Your task to perform on an android device: turn on bluetooth scan Image 0: 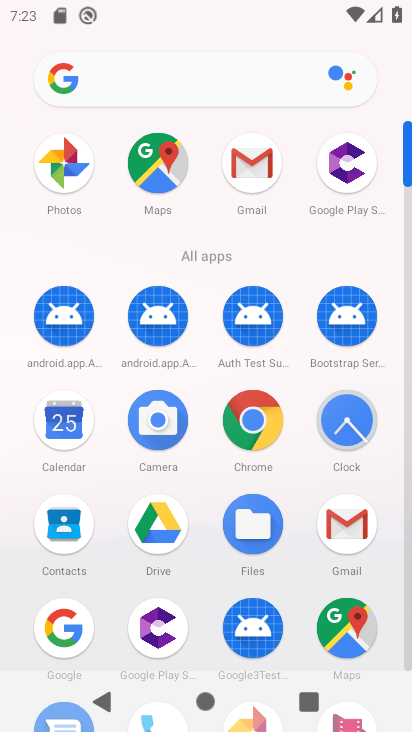
Step 0: drag from (265, 583) to (264, 322)
Your task to perform on an android device: turn on bluetooth scan Image 1: 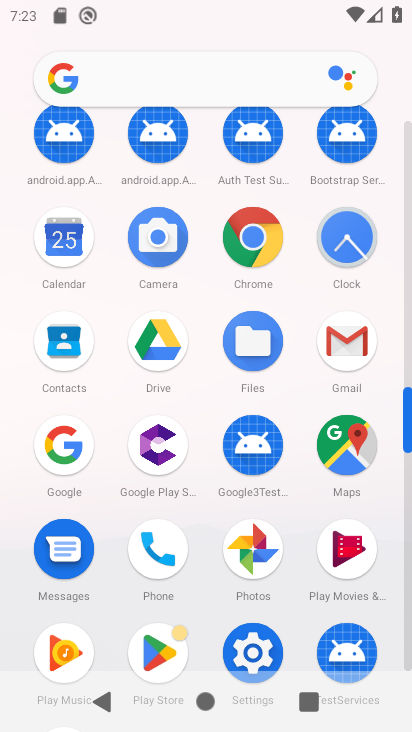
Step 1: click (243, 658)
Your task to perform on an android device: turn on bluetooth scan Image 2: 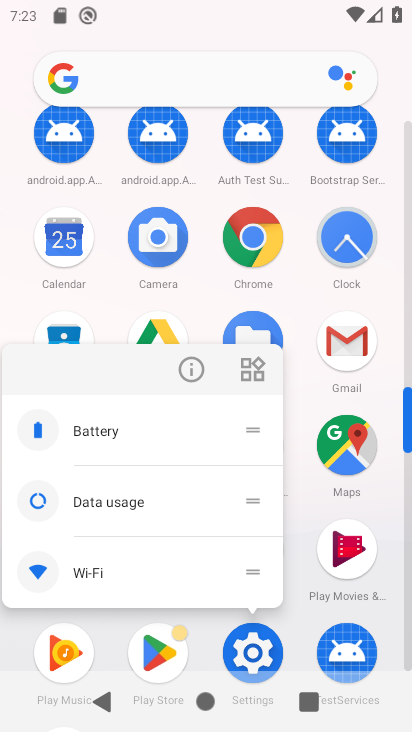
Step 2: click (255, 649)
Your task to perform on an android device: turn on bluetooth scan Image 3: 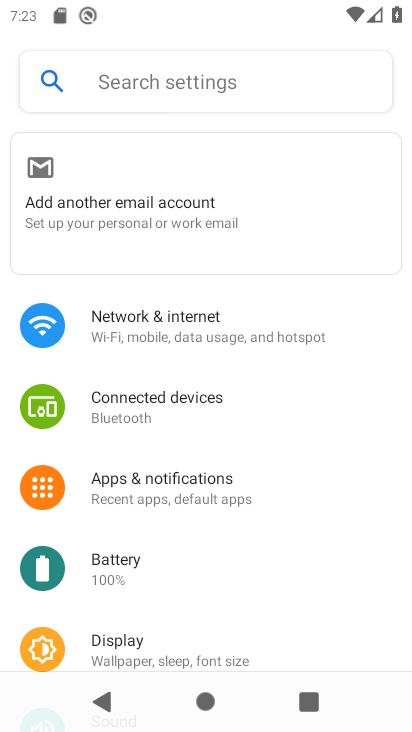
Step 3: drag from (225, 604) to (330, 321)
Your task to perform on an android device: turn on bluetooth scan Image 4: 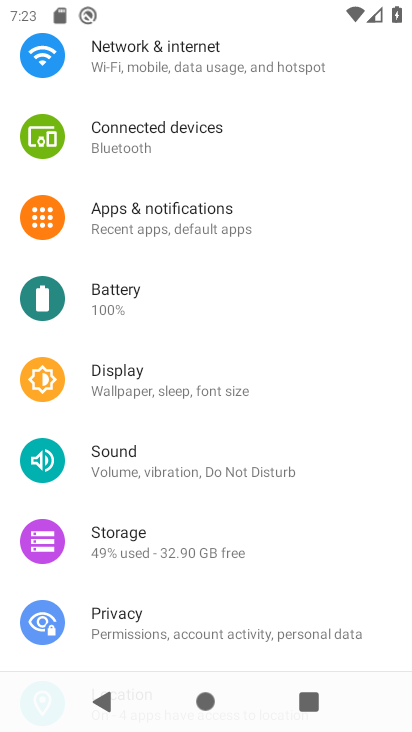
Step 4: drag from (299, 564) to (342, 254)
Your task to perform on an android device: turn on bluetooth scan Image 5: 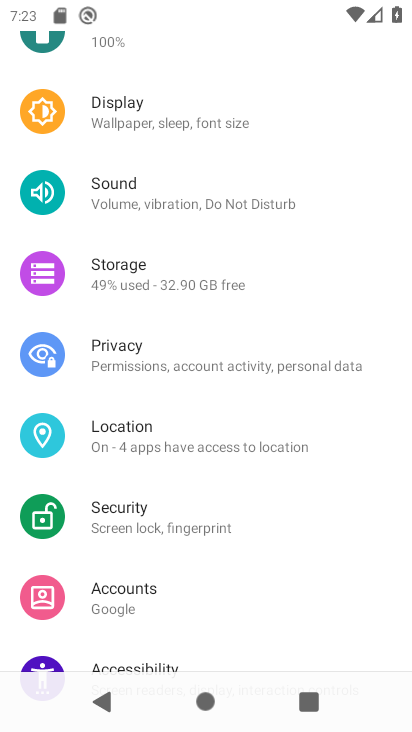
Step 5: click (191, 437)
Your task to perform on an android device: turn on bluetooth scan Image 6: 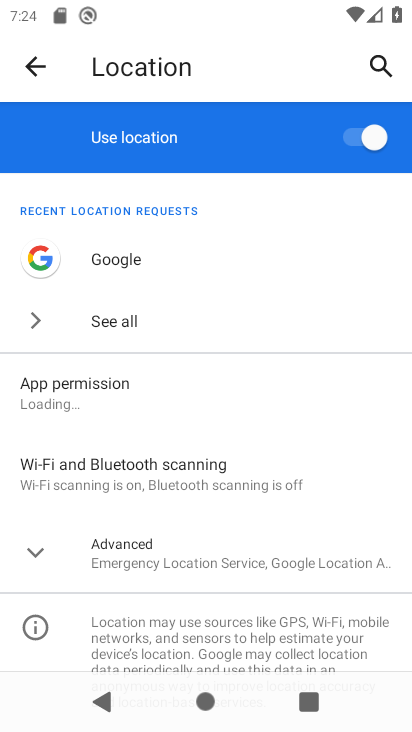
Step 6: click (183, 463)
Your task to perform on an android device: turn on bluetooth scan Image 7: 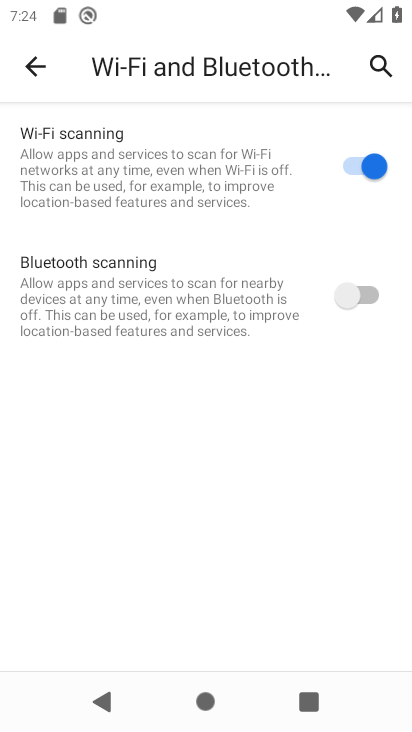
Step 7: click (362, 291)
Your task to perform on an android device: turn on bluetooth scan Image 8: 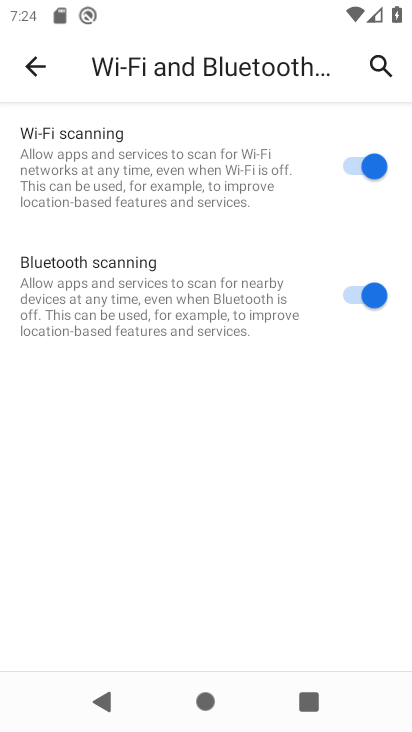
Step 8: task complete